Your task to perform on an android device: Search for vegetarian restaurants on Maps Image 0: 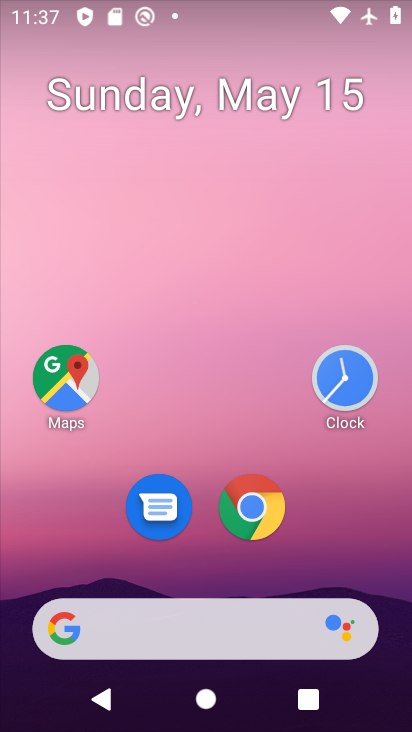
Step 0: click (53, 373)
Your task to perform on an android device: Search for vegetarian restaurants on Maps Image 1: 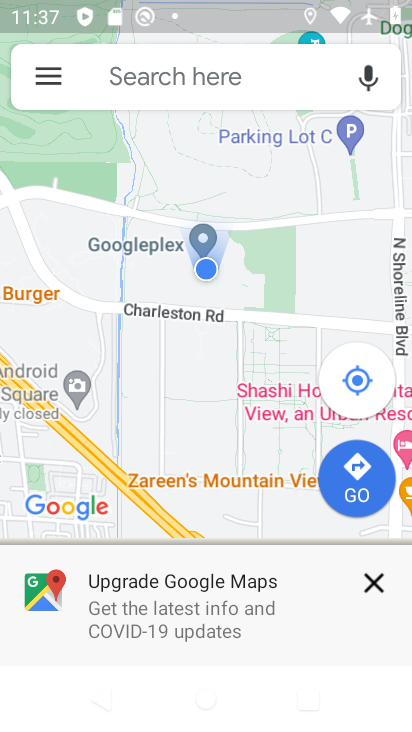
Step 1: click (228, 75)
Your task to perform on an android device: Search for vegetarian restaurants on Maps Image 2: 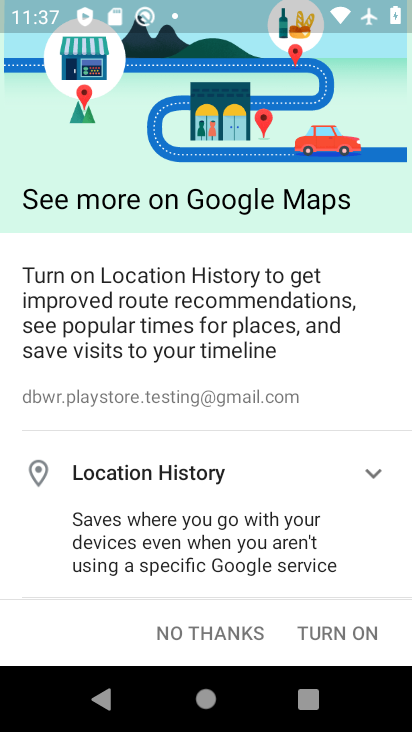
Step 2: press back button
Your task to perform on an android device: Search for vegetarian restaurants on Maps Image 3: 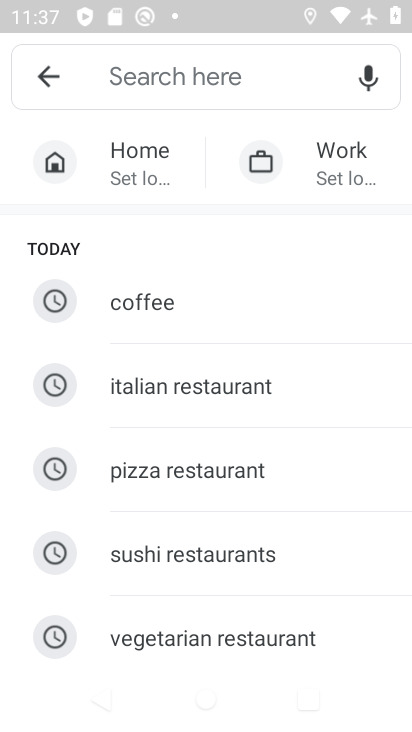
Step 3: click (200, 639)
Your task to perform on an android device: Search for vegetarian restaurants on Maps Image 4: 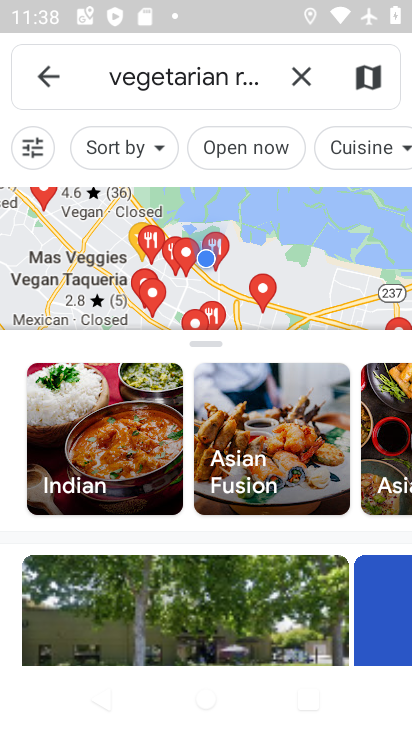
Step 4: task complete